Your task to perform on an android device: Open my contact list Image 0: 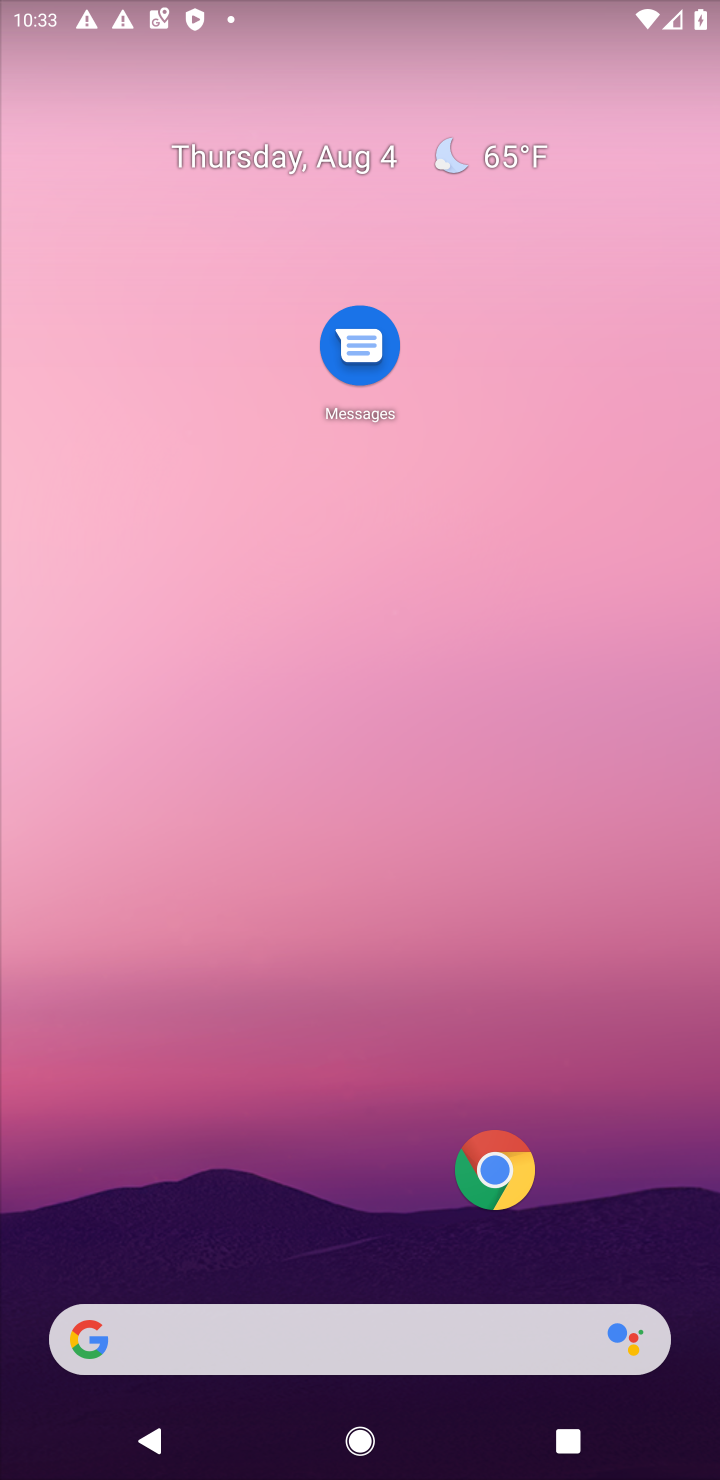
Step 0: drag from (317, 1366) to (371, 254)
Your task to perform on an android device: Open my contact list Image 1: 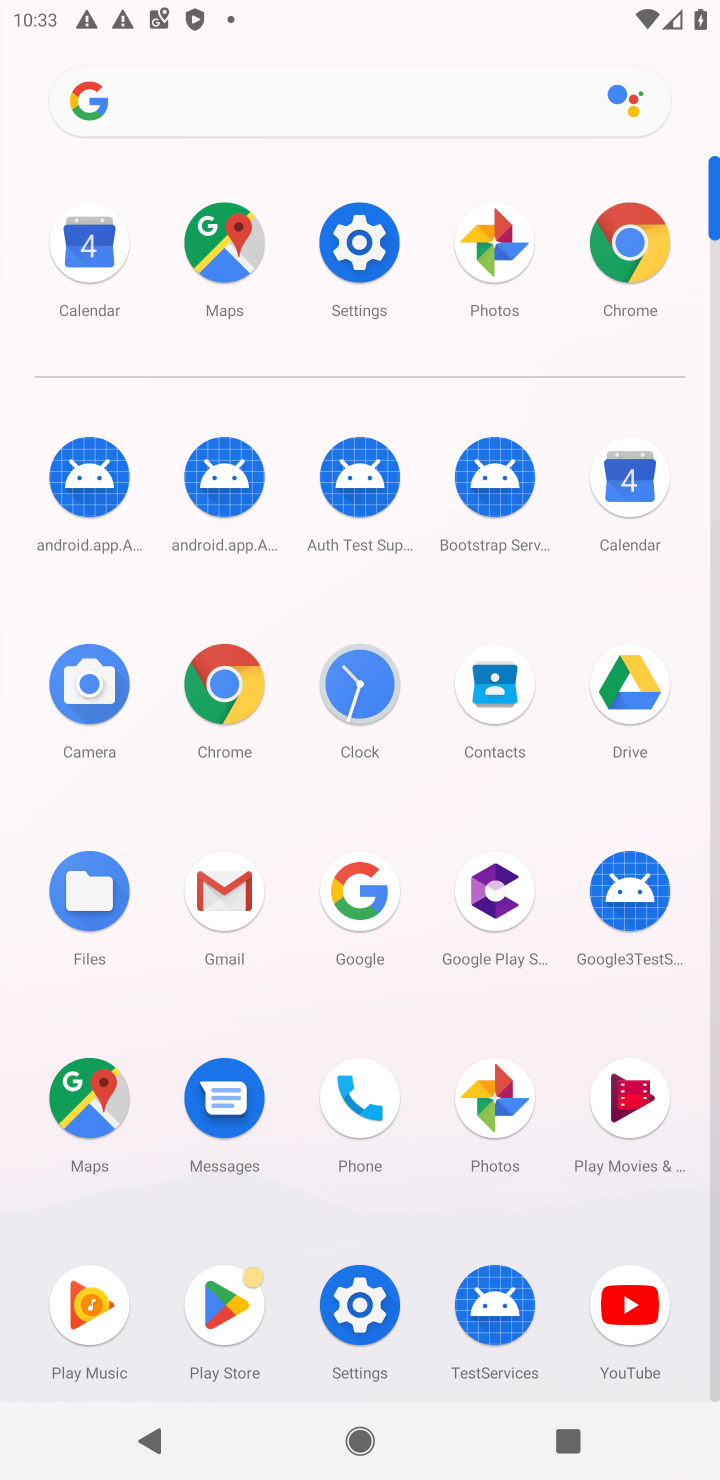
Step 1: click (361, 1116)
Your task to perform on an android device: Open my contact list Image 2: 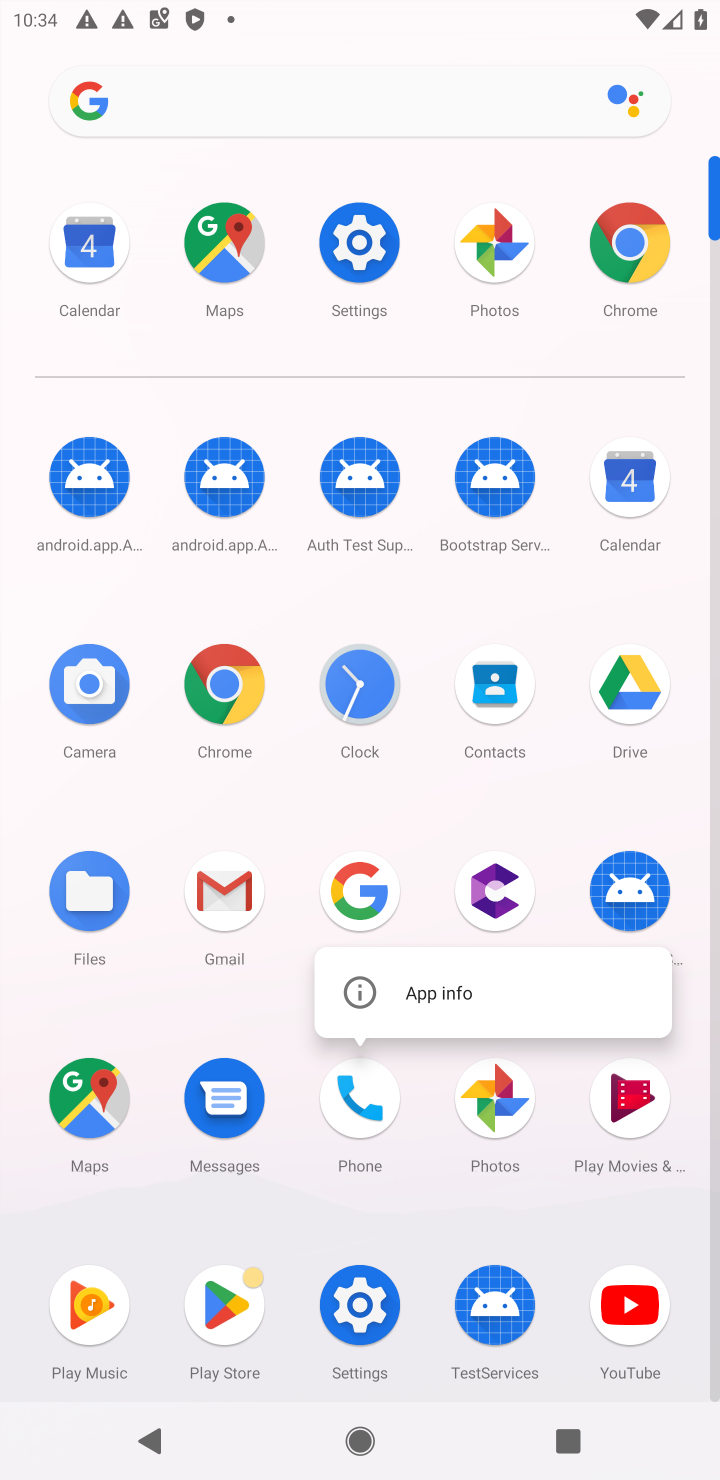
Step 2: click (339, 1106)
Your task to perform on an android device: Open my contact list Image 3: 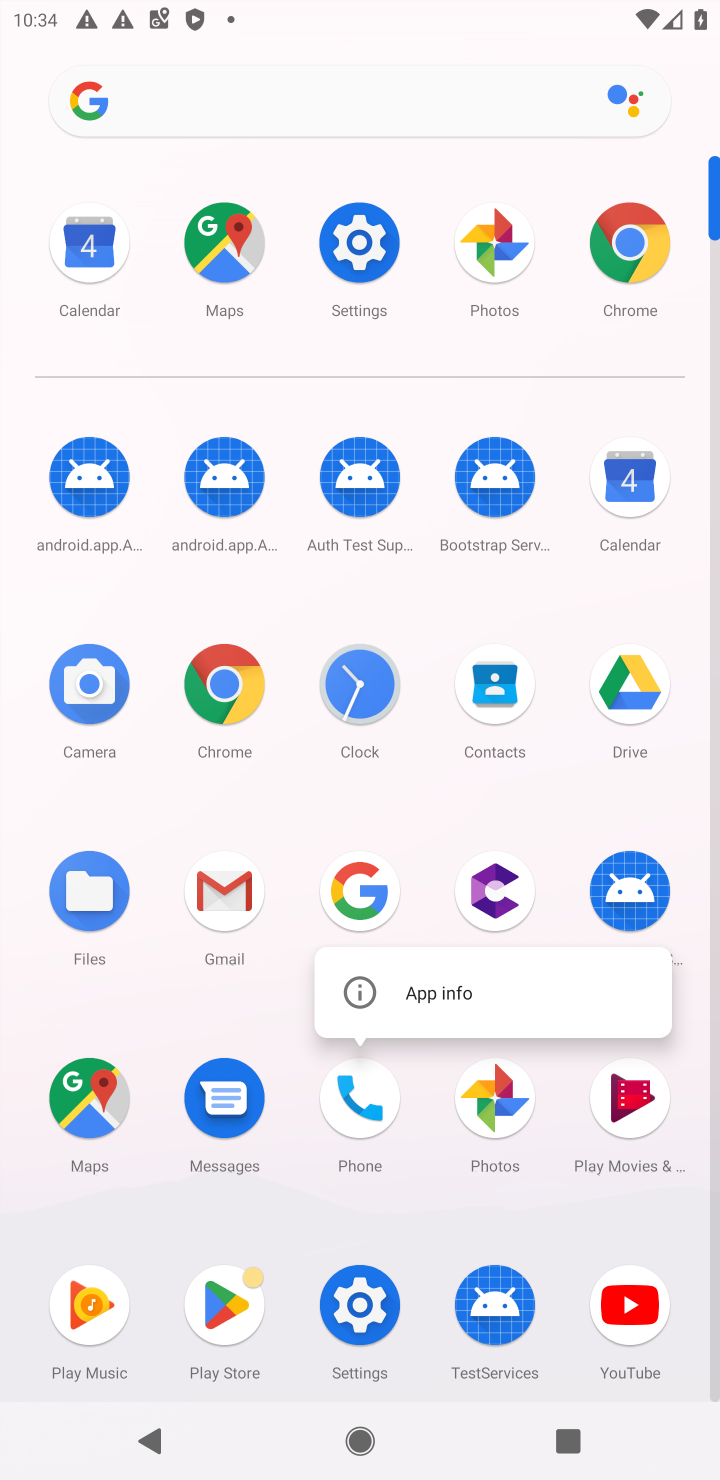
Step 3: click (348, 1103)
Your task to perform on an android device: Open my contact list Image 4: 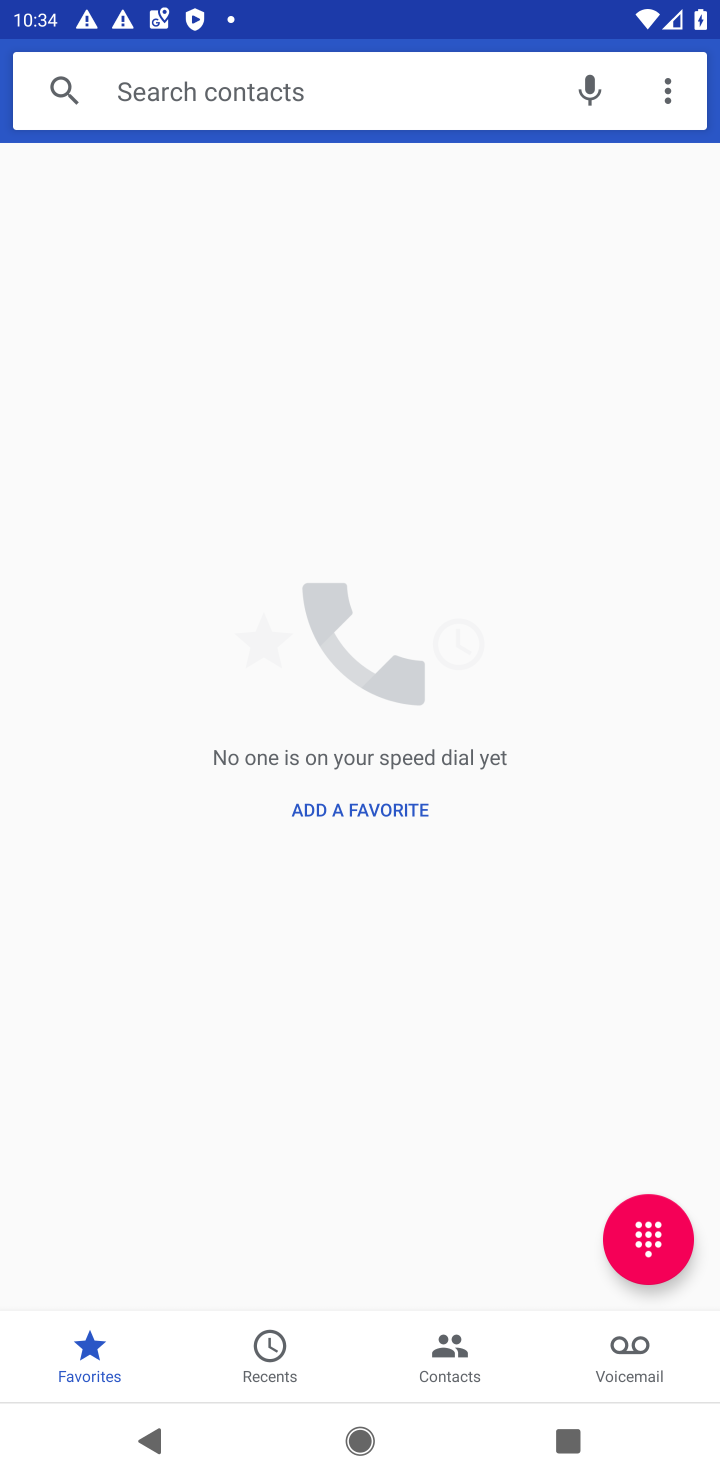
Step 4: click (453, 1377)
Your task to perform on an android device: Open my contact list Image 5: 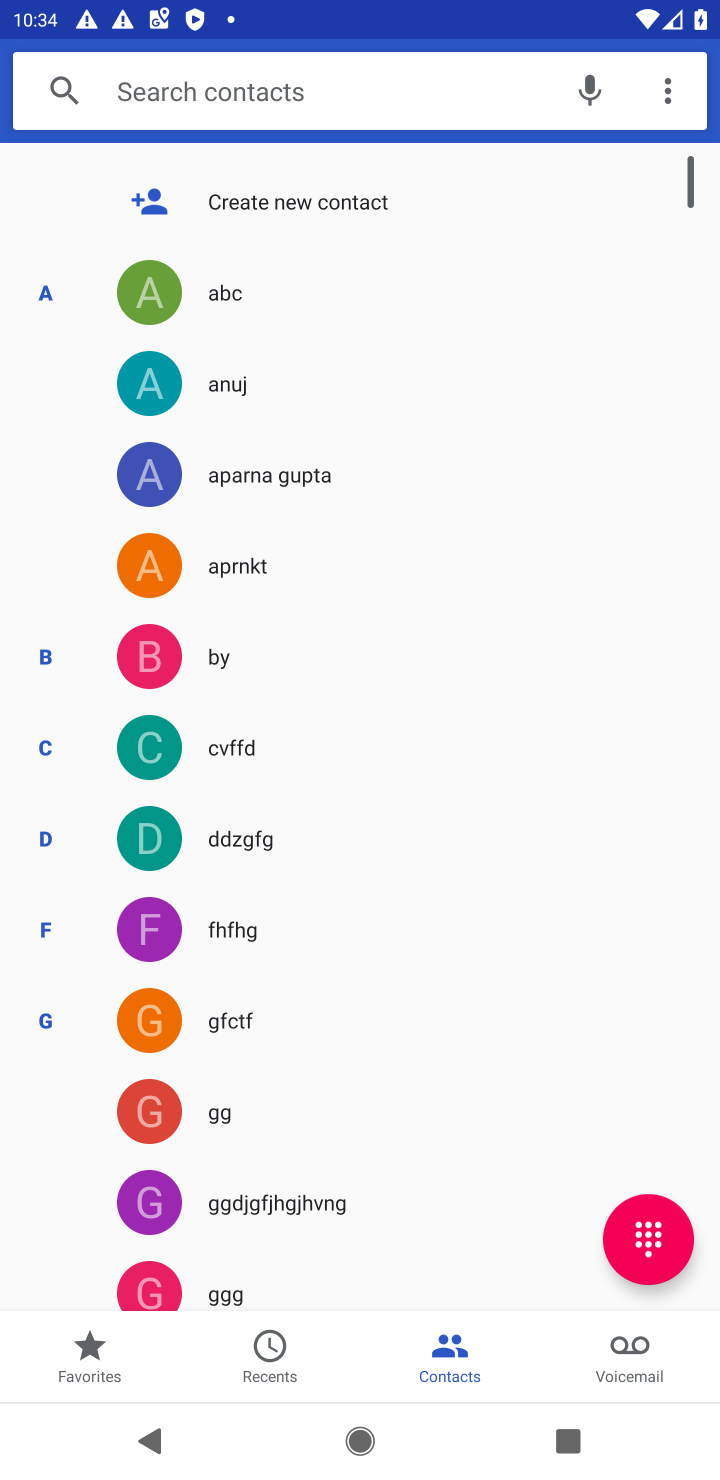
Step 5: task complete